Your task to perform on an android device: change notification settings in the gmail app Image 0: 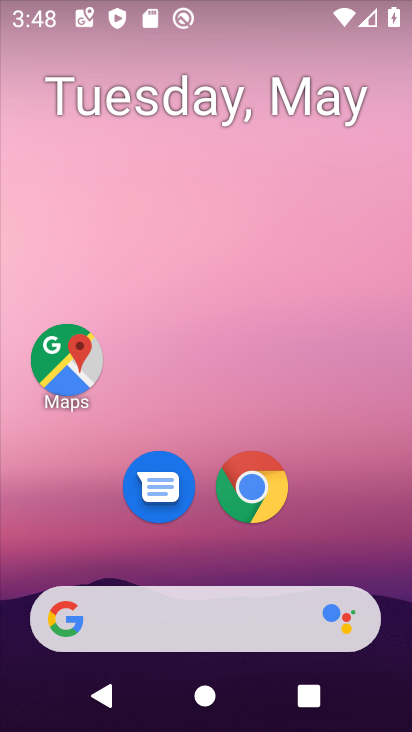
Step 0: drag from (197, 564) to (280, 69)
Your task to perform on an android device: change notification settings in the gmail app Image 1: 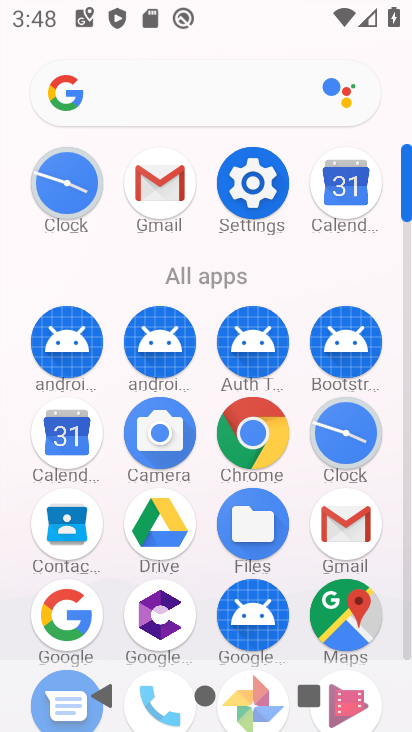
Step 1: click (345, 523)
Your task to perform on an android device: change notification settings in the gmail app Image 2: 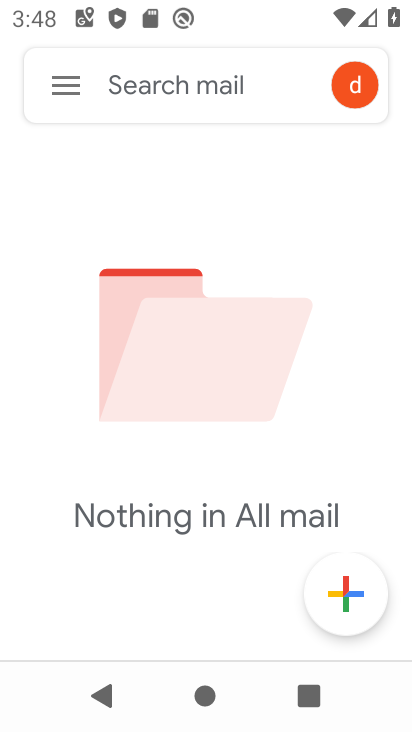
Step 2: click (73, 71)
Your task to perform on an android device: change notification settings in the gmail app Image 3: 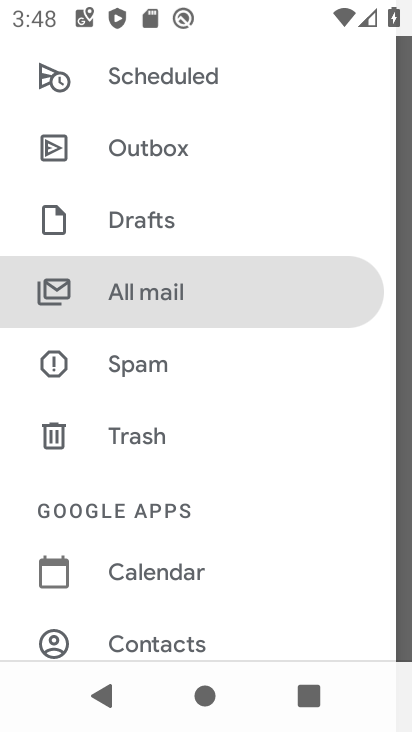
Step 3: drag from (149, 571) to (236, 215)
Your task to perform on an android device: change notification settings in the gmail app Image 4: 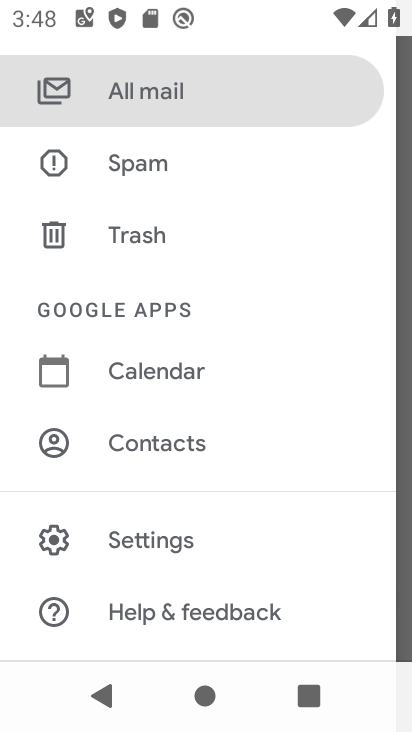
Step 4: click (170, 558)
Your task to perform on an android device: change notification settings in the gmail app Image 5: 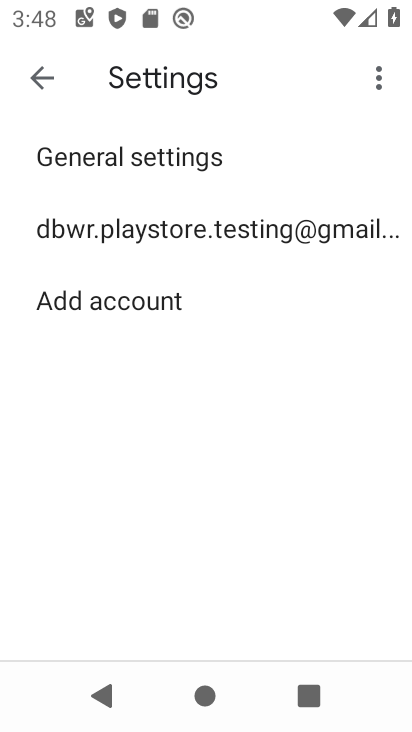
Step 5: click (167, 156)
Your task to perform on an android device: change notification settings in the gmail app Image 6: 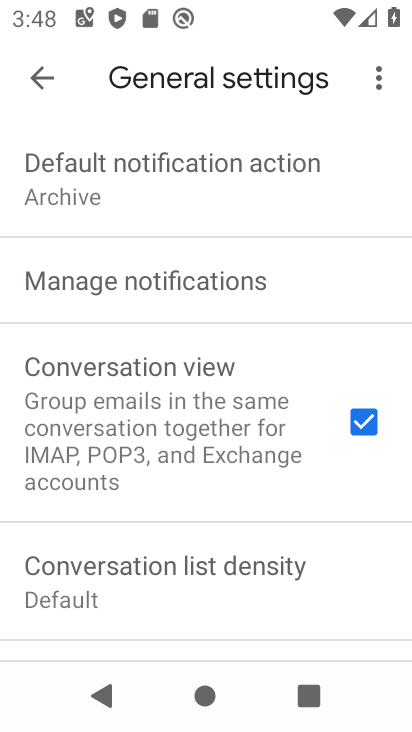
Step 6: click (129, 278)
Your task to perform on an android device: change notification settings in the gmail app Image 7: 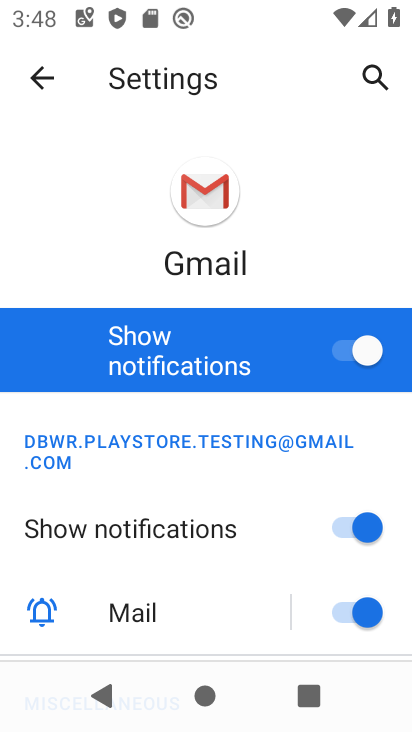
Step 7: click (318, 354)
Your task to perform on an android device: change notification settings in the gmail app Image 8: 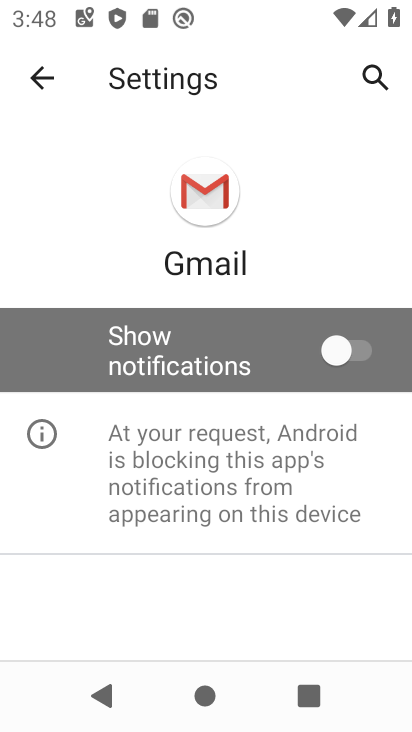
Step 8: task complete